Your task to perform on an android device: open app "DoorDash - Dasher" Image 0: 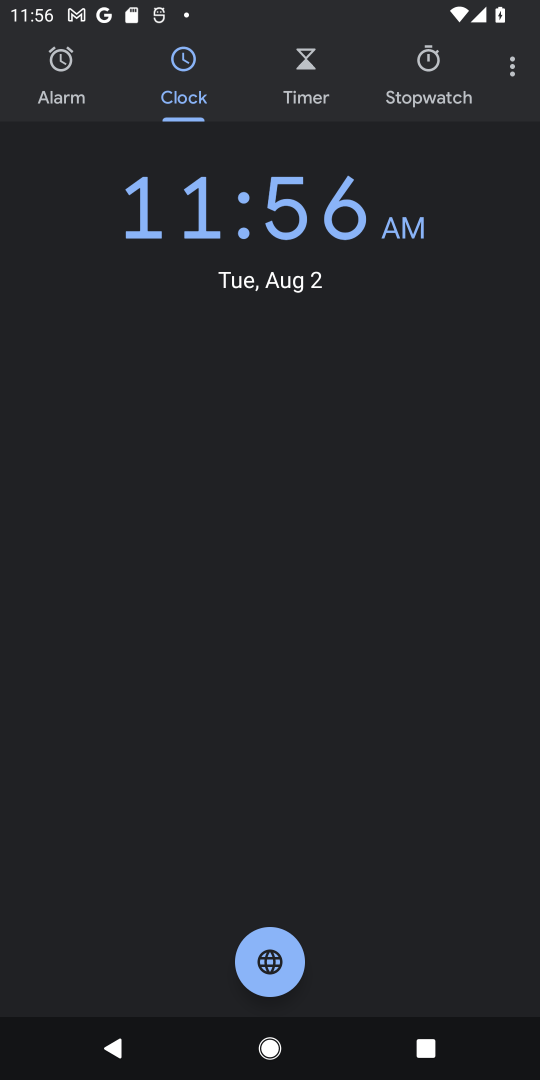
Step 0: press home button
Your task to perform on an android device: open app "DoorDash - Dasher" Image 1: 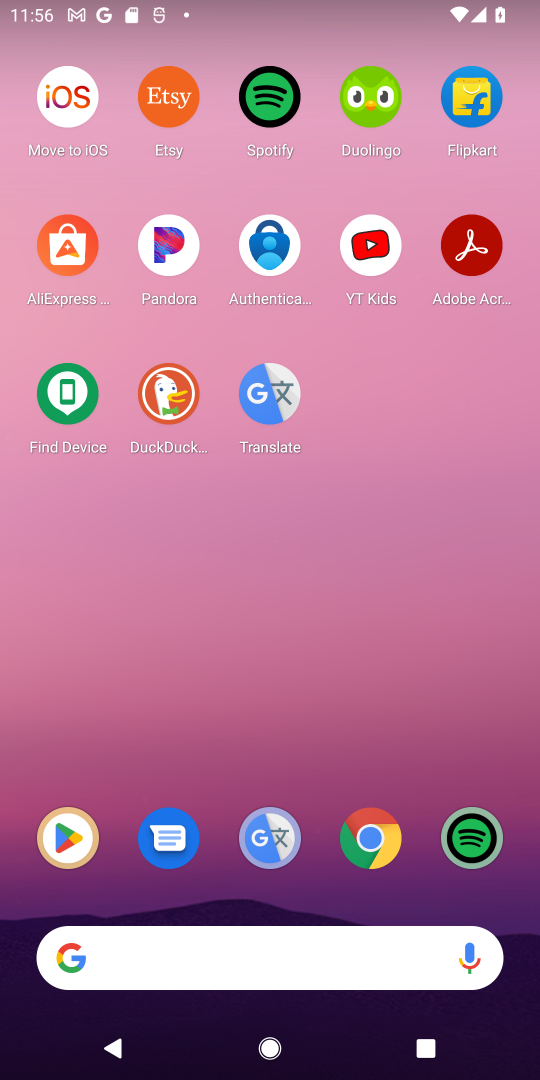
Step 1: drag from (62, 849) to (4, 849)
Your task to perform on an android device: open app "DoorDash - Dasher" Image 2: 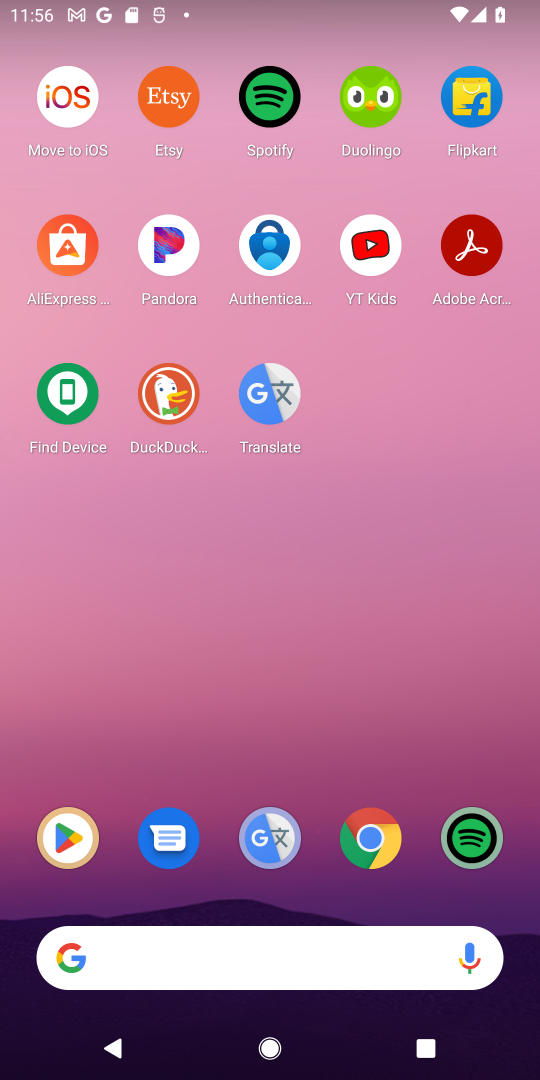
Step 2: click (72, 853)
Your task to perform on an android device: open app "DoorDash - Dasher" Image 3: 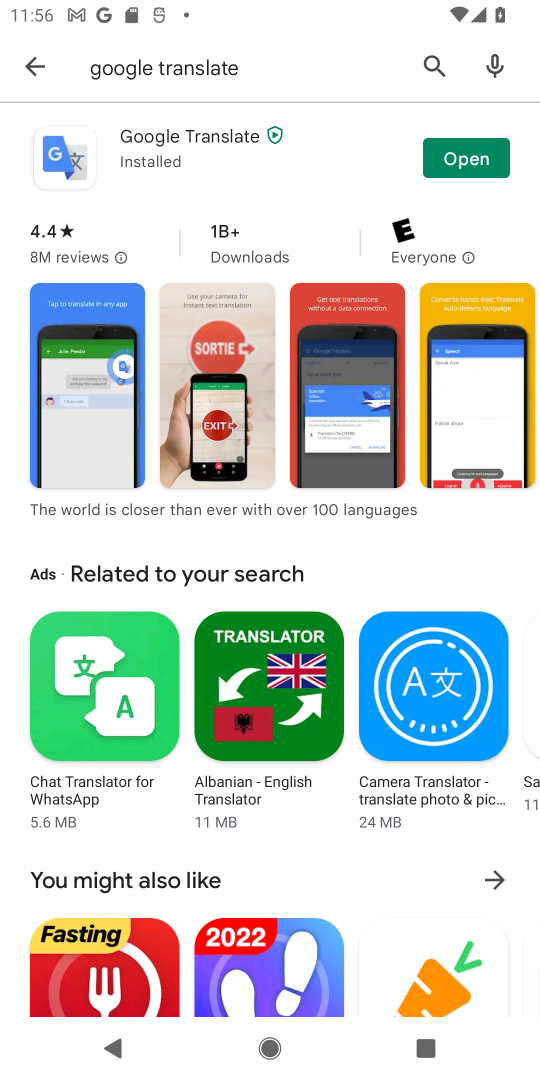
Step 3: click (440, 71)
Your task to perform on an android device: open app "DoorDash - Dasher" Image 4: 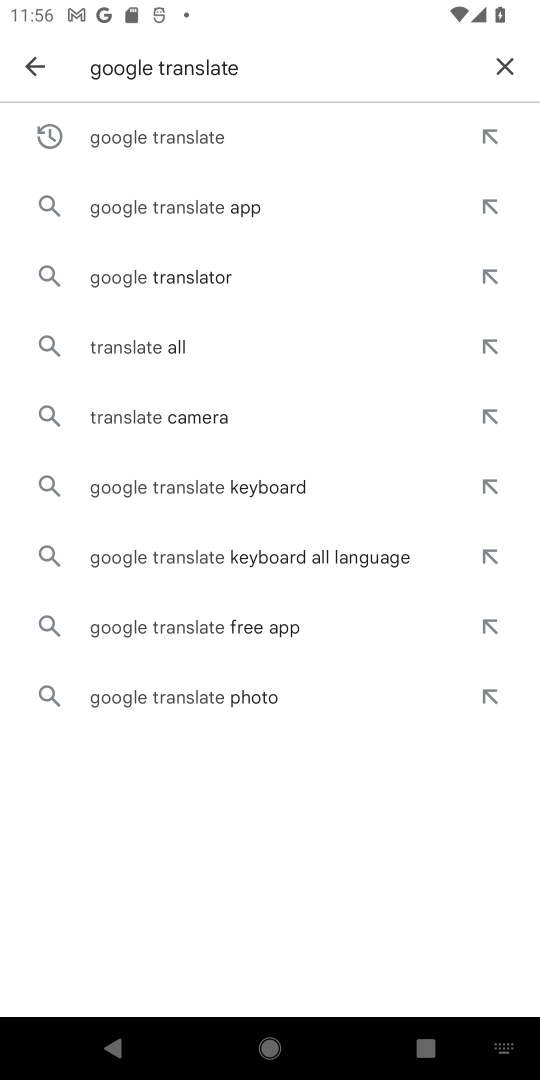
Step 4: click (508, 75)
Your task to perform on an android device: open app "DoorDash - Dasher" Image 5: 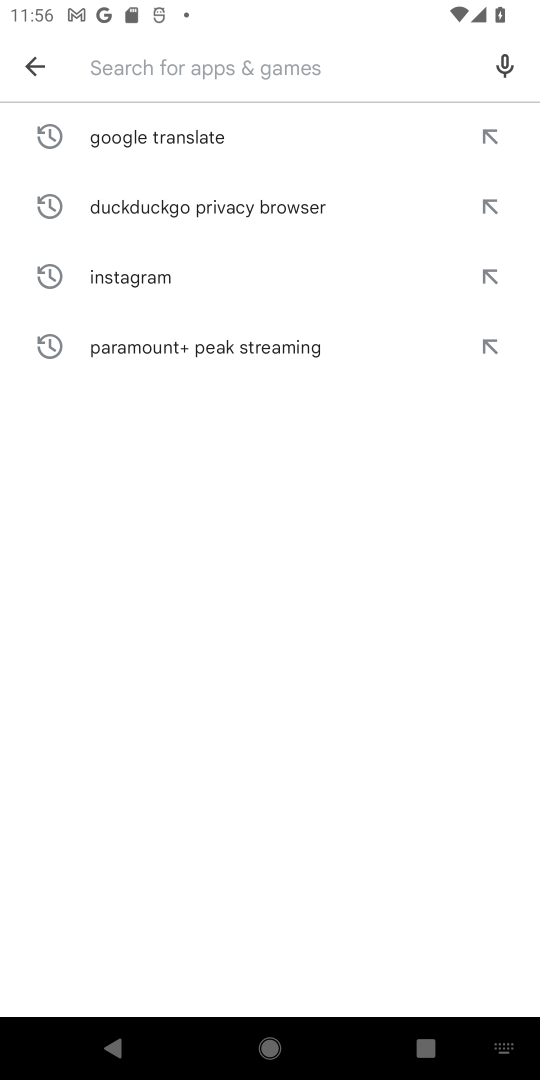
Step 5: type "DoorDash - Dasher"
Your task to perform on an android device: open app "DoorDash - Dasher" Image 6: 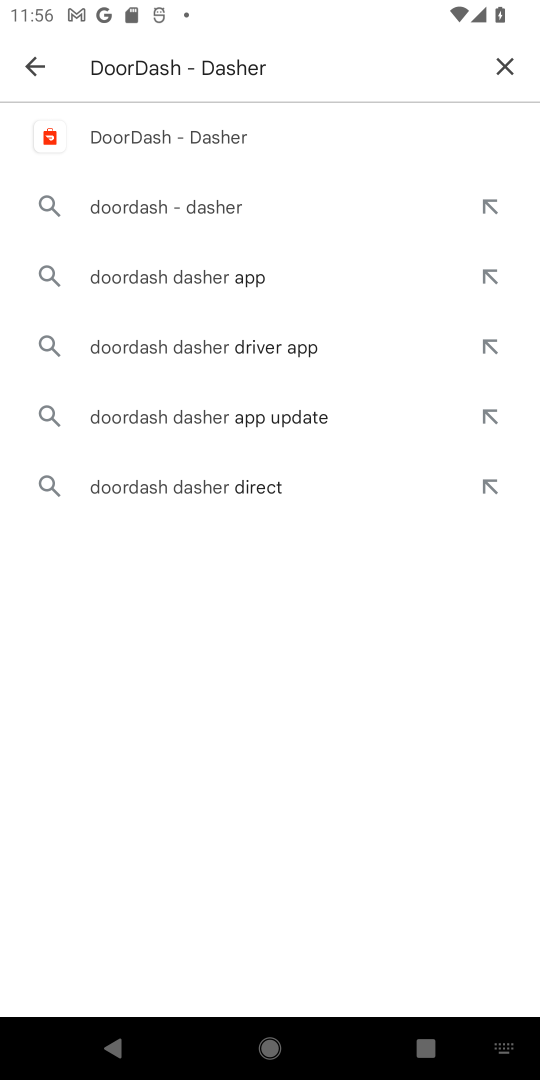
Step 6: click (89, 148)
Your task to perform on an android device: open app "DoorDash - Dasher" Image 7: 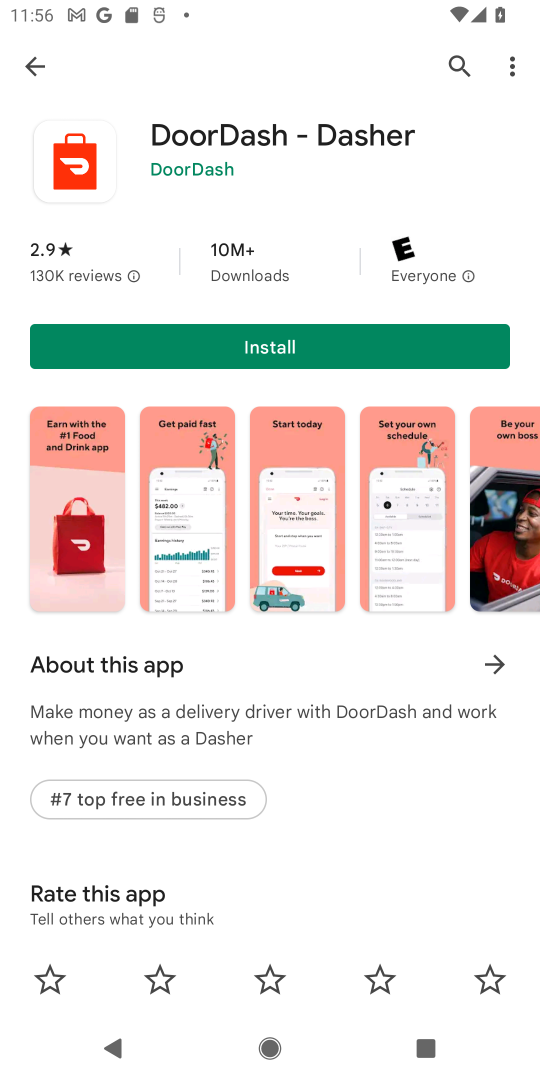
Step 7: task complete